Your task to perform on an android device: turn off improve location accuracy Image 0: 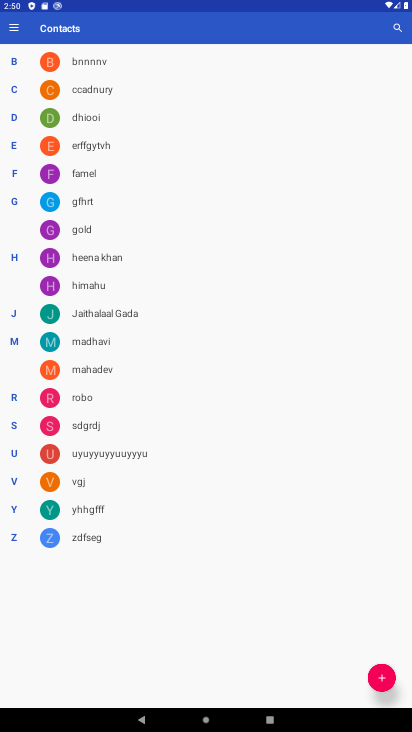
Step 0: press home button
Your task to perform on an android device: turn off improve location accuracy Image 1: 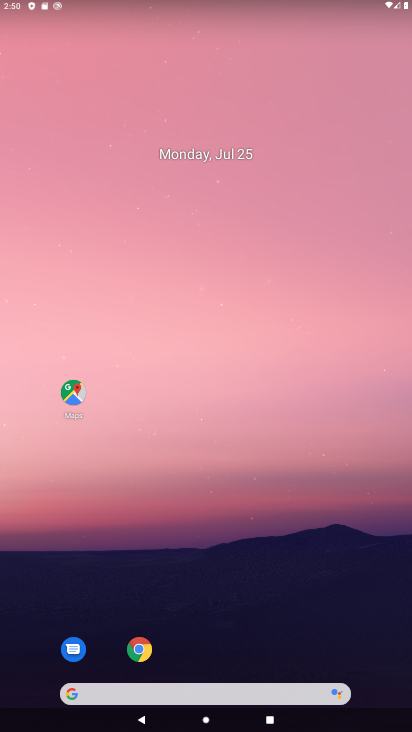
Step 1: drag from (183, 721) to (192, 243)
Your task to perform on an android device: turn off improve location accuracy Image 2: 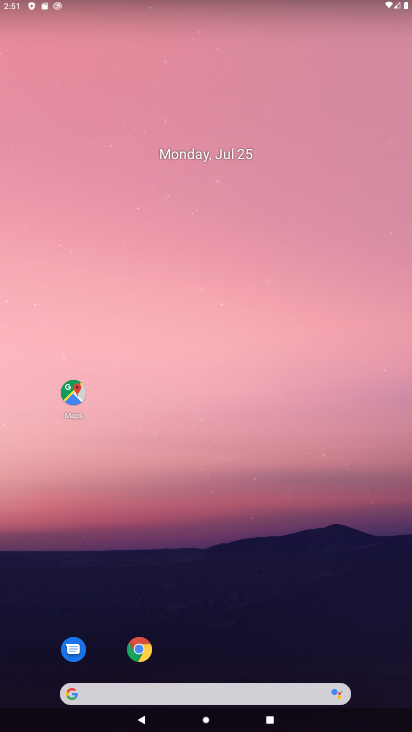
Step 2: drag from (251, 719) to (214, 204)
Your task to perform on an android device: turn off improve location accuracy Image 3: 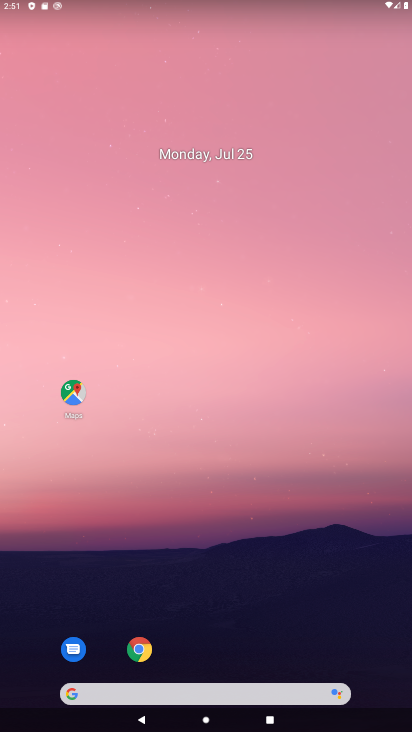
Step 3: drag from (232, 635) to (203, 36)
Your task to perform on an android device: turn off improve location accuracy Image 4: 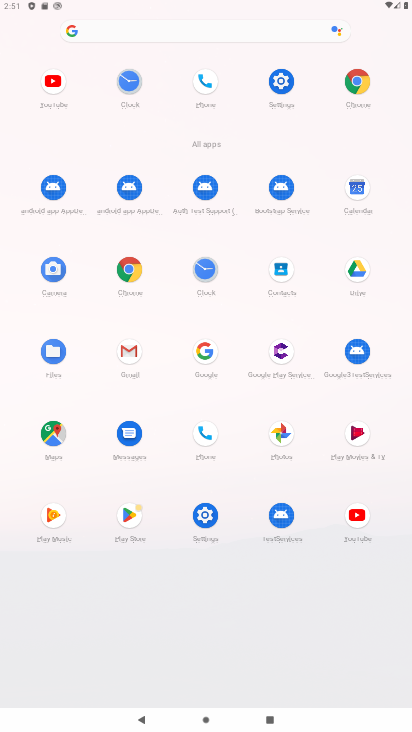
Step 4: click (277, 99)
Your task to perform on an android device: turn off improve location accuracy Image 5: 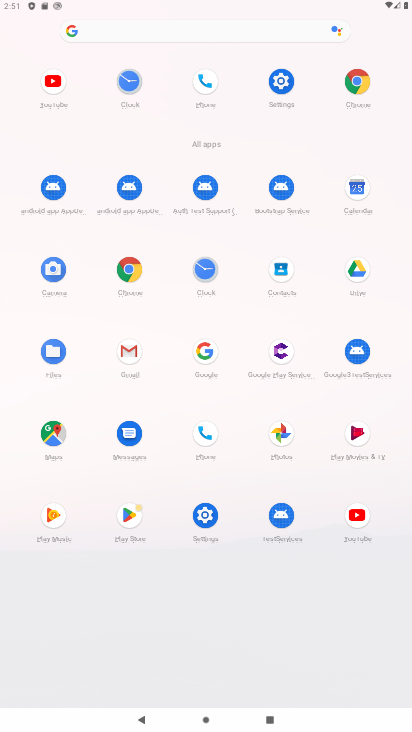
Step 5: click (277, 99)
Your task to perform on an android device: turn off improve location accuracy Image 6: 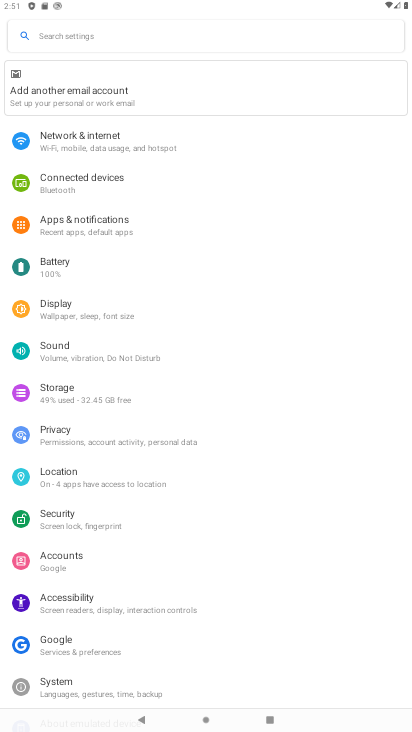
Step 6: click (85, 479)
Your task to perform on an android device: turn off improve location accuracy Image 7: 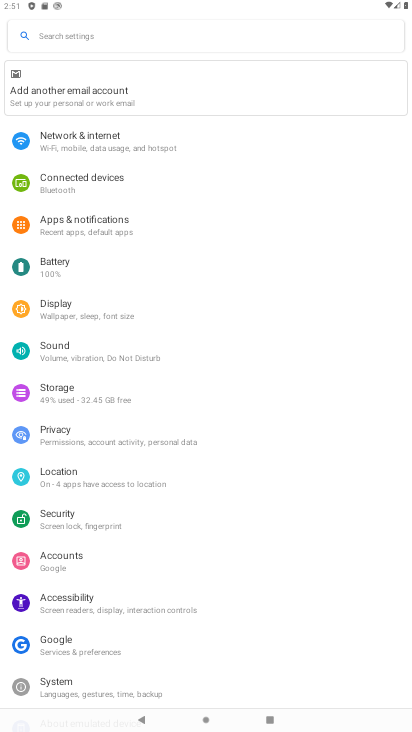
Step 7: click (85, 479)
Your task to perform on an android device: turn off improve location accuracy Image 8: 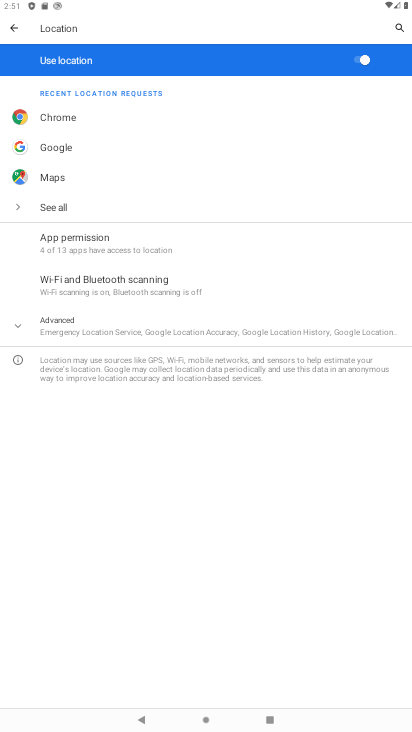
Step 8: click (132, 330)
Your task to perform on an android device: turn off improve location accuracy Image 9: 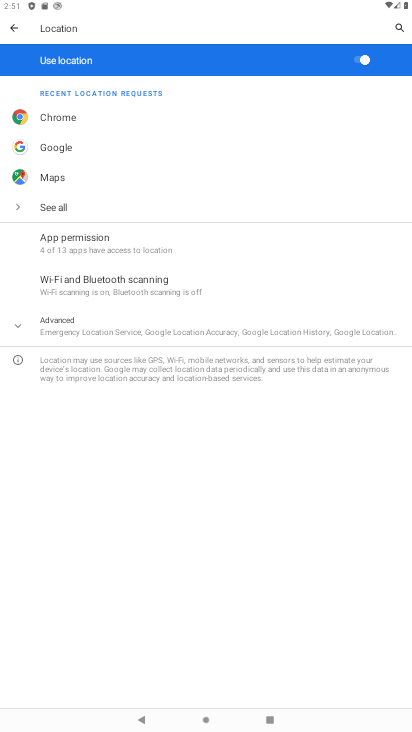
Step 9: click (132, 330)
Your task to perform on an android device: turn off improve location accuracy Image 10: 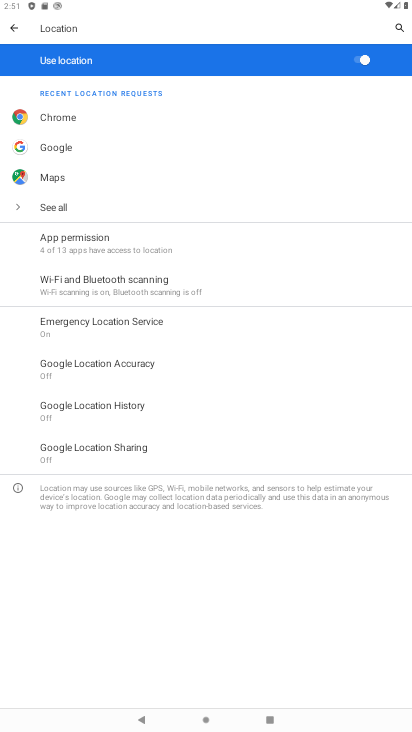
Step 10: click (138, 369)
Your task to perform on an android device: turn off improve location accuracy Image 11: 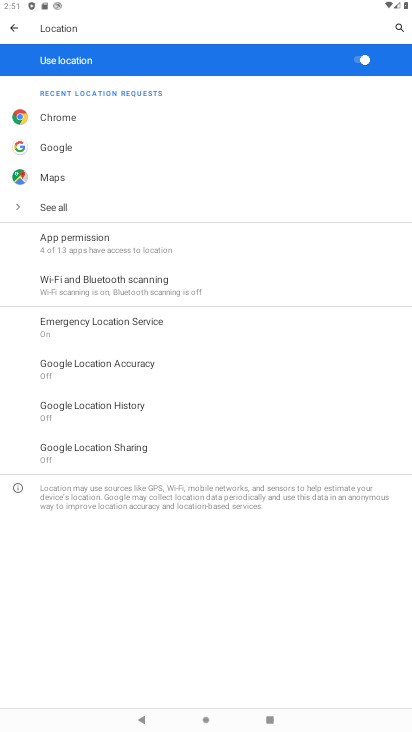
Step 11: click (138, 369)
Your task to perform on an android device: turn off improve location accuracy Image 12: 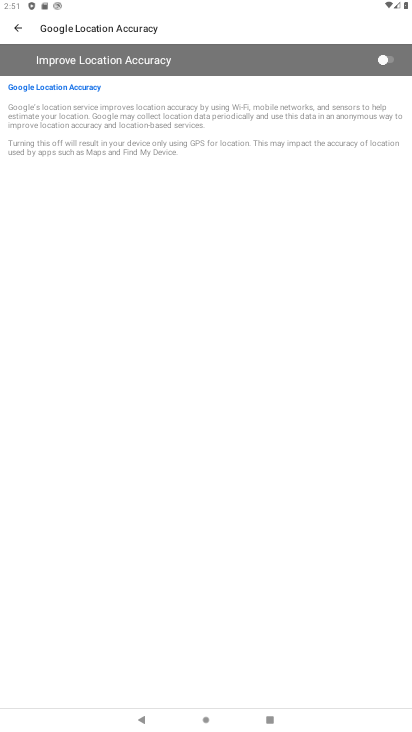
Step 12: task complete